Your task to perform on an android device: Clear all items from cart on amazon. Image 0: 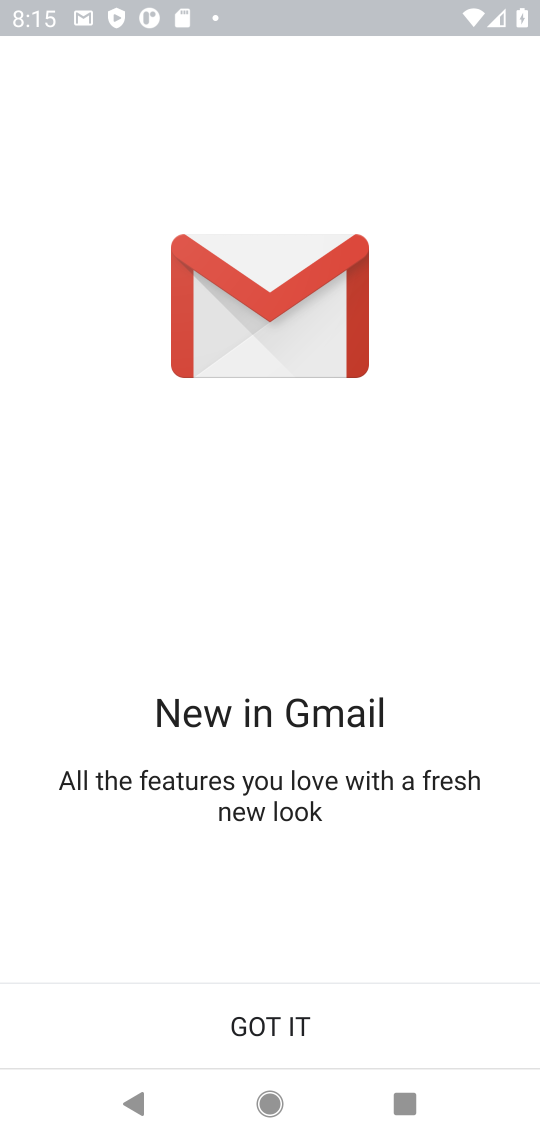
Step 0: press home button
Your task to perform on an android device: Clear all items from cart on amazon. Image 1: 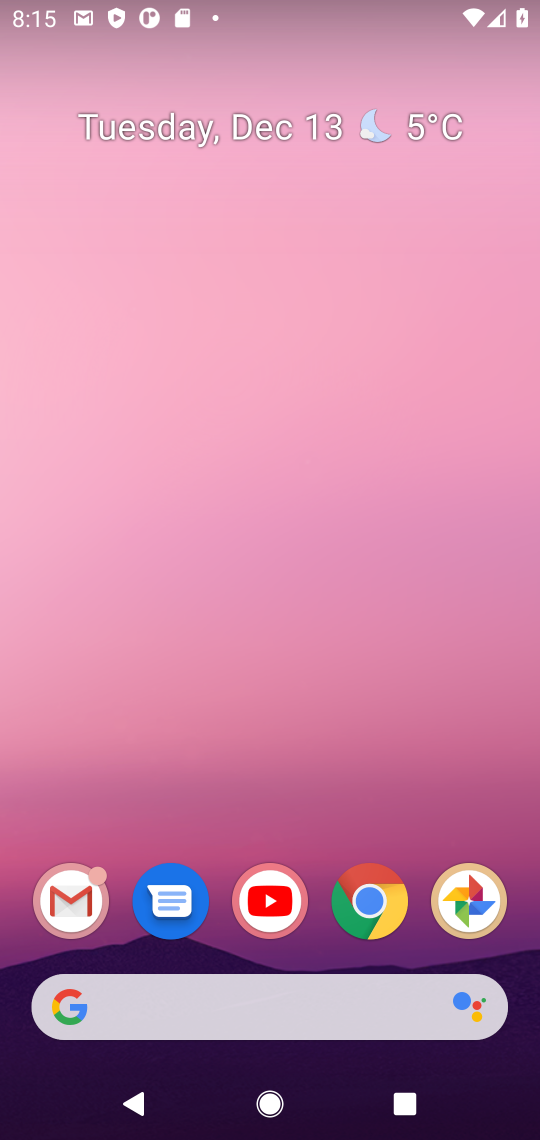
Step 1: click (355, 890)
Your task to perform on an android device: Clear all items from cart on amazon. Image 2: 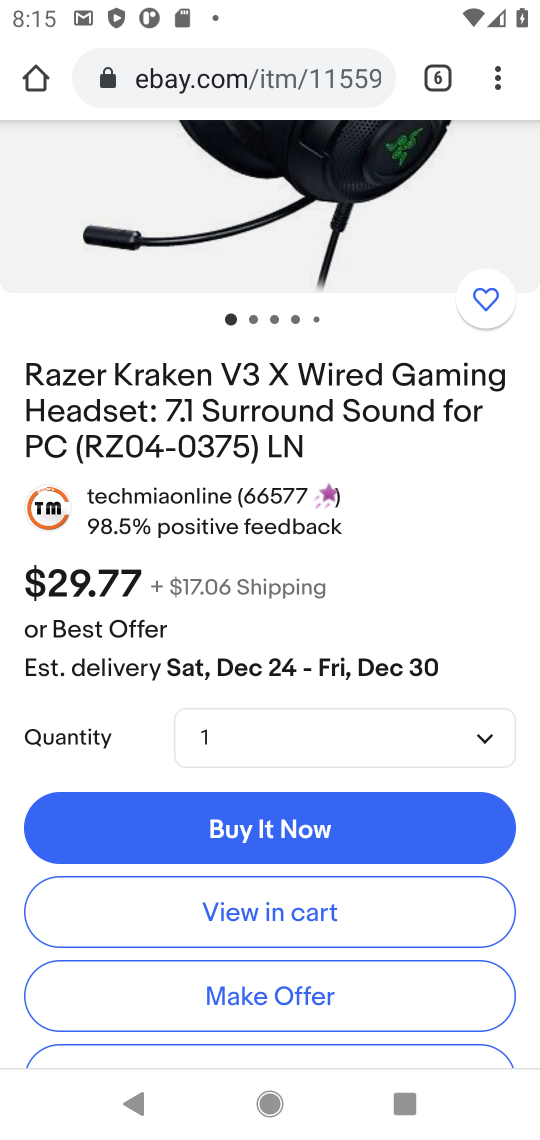
Step 2: click (438, 67)
Your task to perform on an android device: Clear all items from cart on amazon. Image 3: 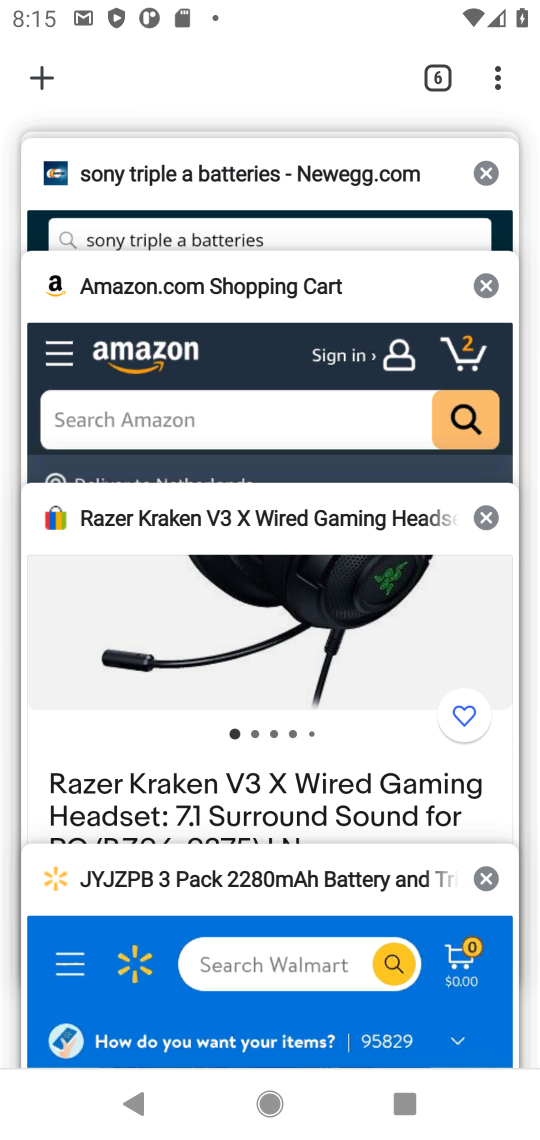
Step 3: click (188, 363)
Your task to perform on an android device: Clear all items from cart on amazon. Image 4: 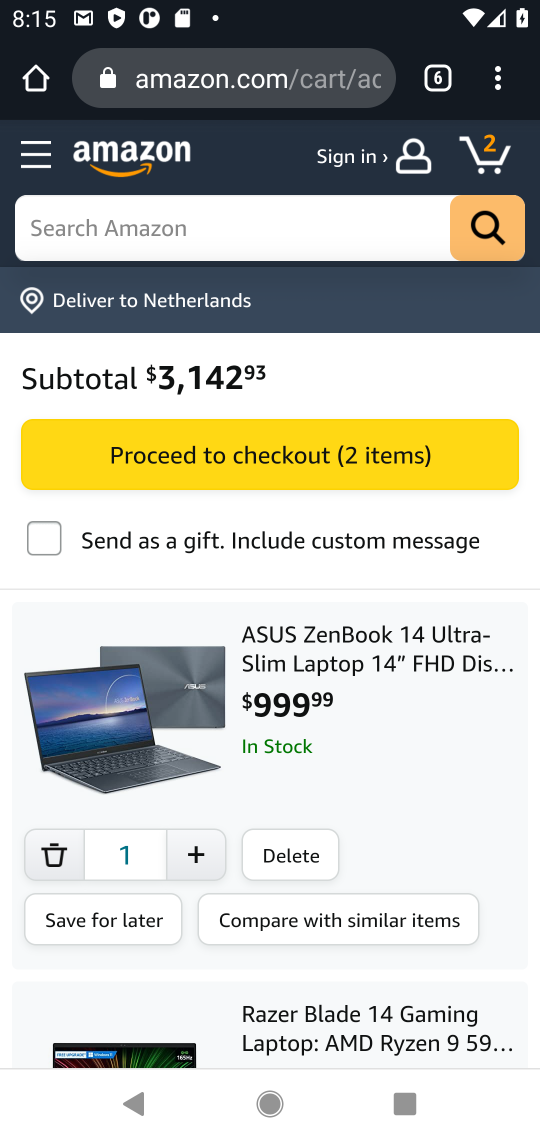
Step 4: click (291, 850)
Your task to perform on an android device: Clear all items from cart on amazon. Image 5: 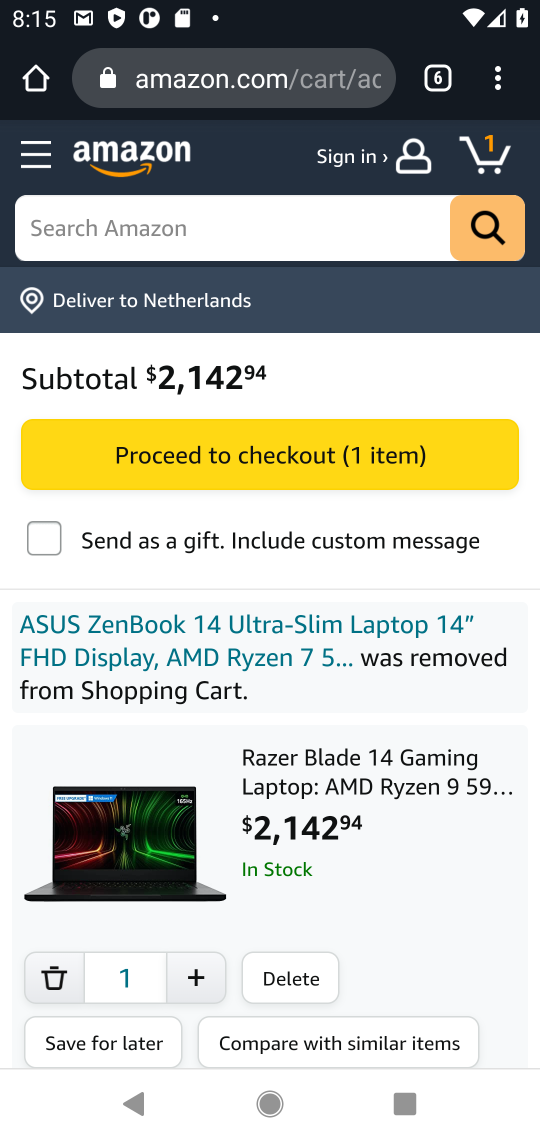
Step 5: click (301, 963)
Your task to perform on an android device: Clear all items from cart on amazon. Image 6: 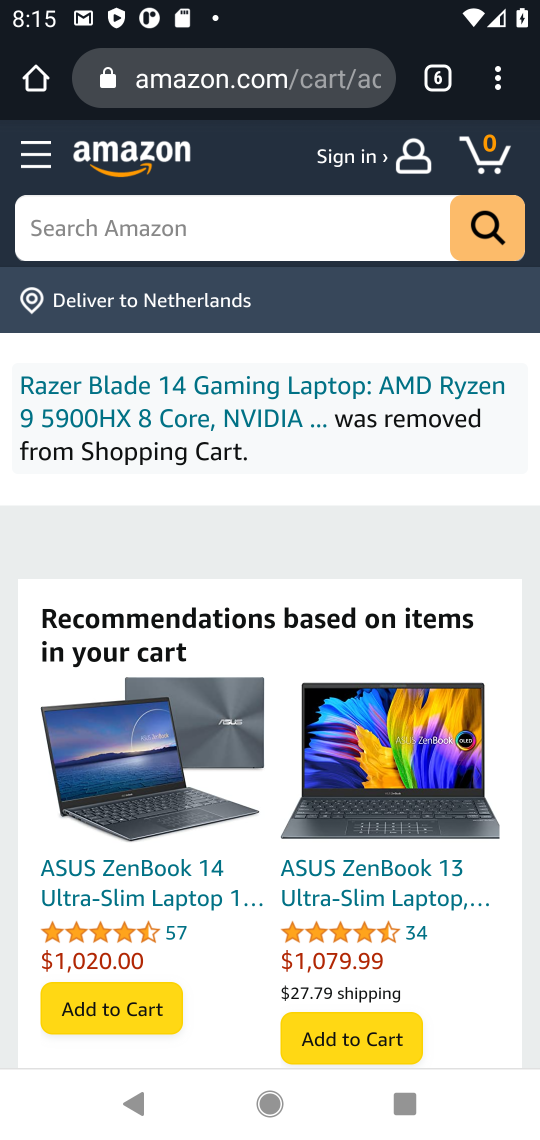
Step 6: task complete